Your task to perform on an android device: delete browsing data in the chrome app Image 0: 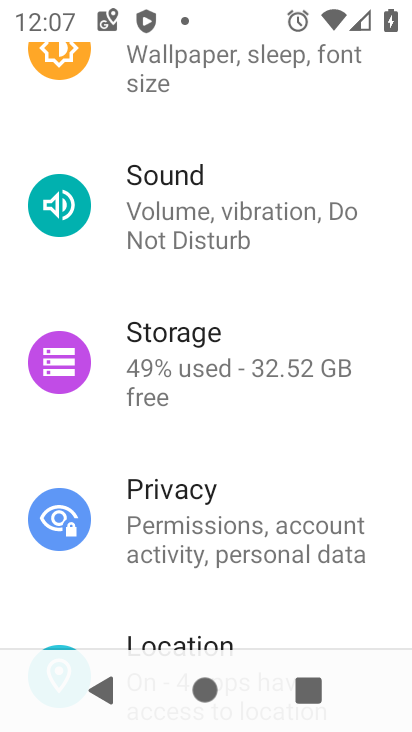
Step 0: press home button
Your task to perform on an android device: delete browsing data in the chrome app Image 1: 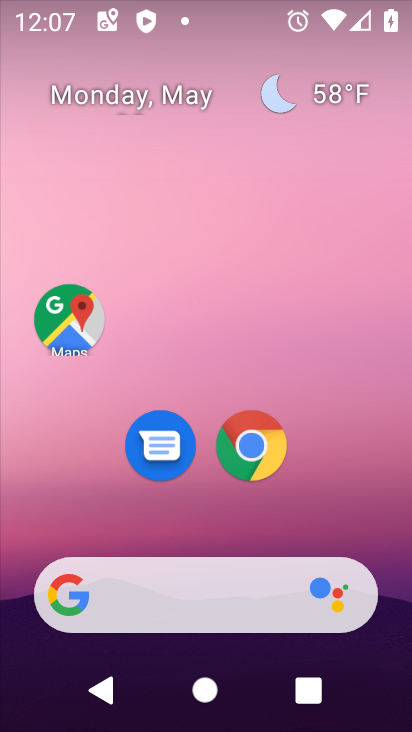
Step 1: click (248, 440)
Your task to perform on an android device: delete browsing data in the chrome app Image 2: 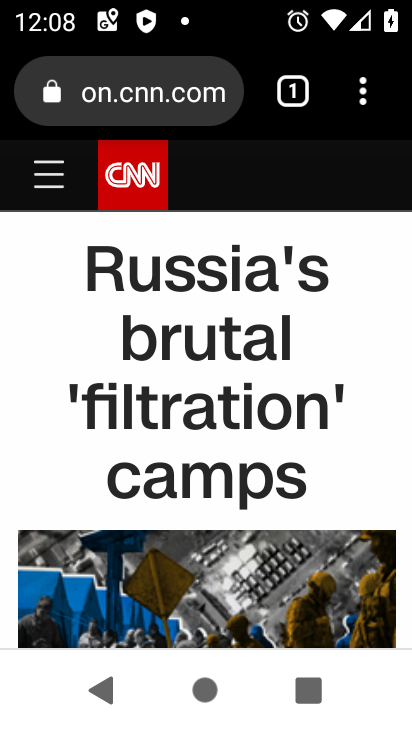
Step 2: click (365, 93)
Your task to perform on an android device: delete browsing data in the chrome app Image 3: 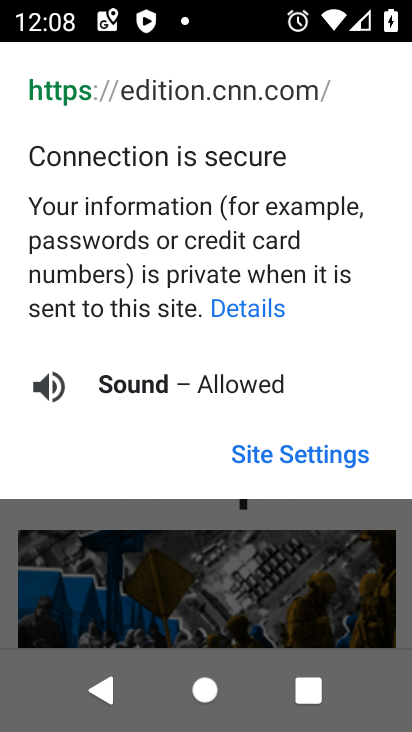
Step 3: click (227, 582)
Your task to perform on an android device: delete browsing data in the chrome app Image 4: 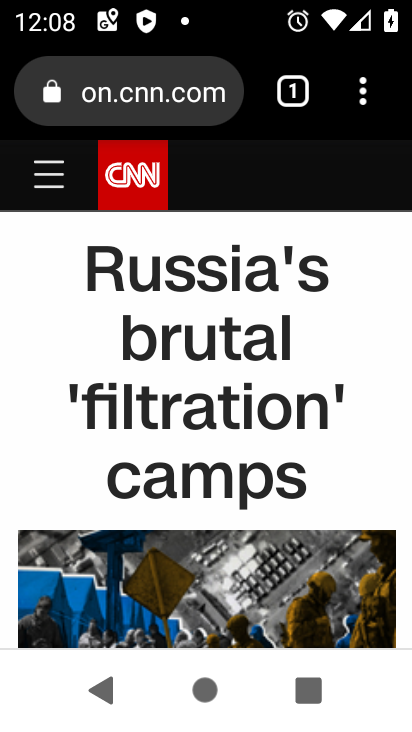
Step 4: click (361, 103)
Your task to perform on an android device: delete browsing data in the chrome app Image 5: 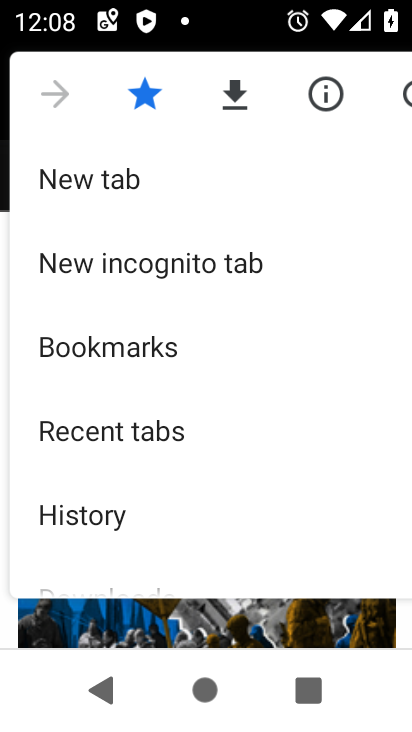
Step 5: click (135, 505)
Your task to perform on an android device: delete browsing data in the chrome app Image 6: 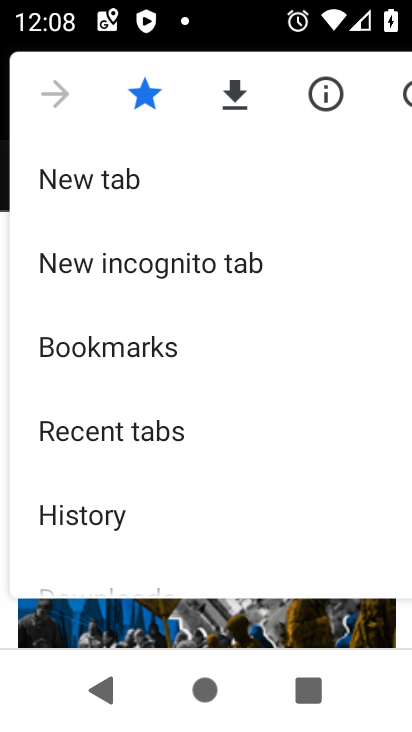
Step 6: click (135, 505)
Your task to perform on an android device: delete browsing data in the chrome app Image 7: 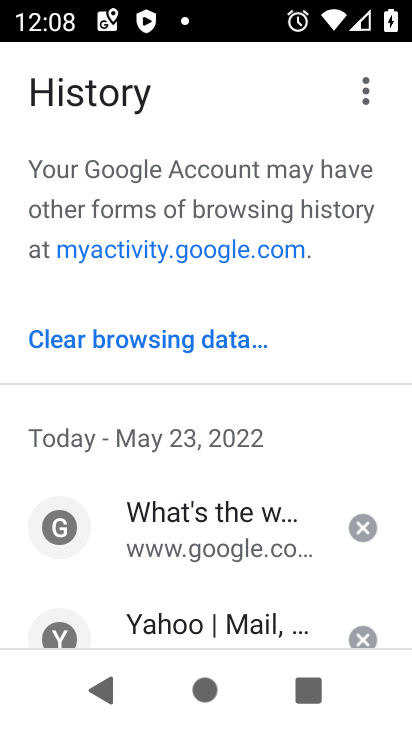
Step 7: click (128, 335)
Your task to perform on an android device: delete browsing data in the chrome app Image 8: 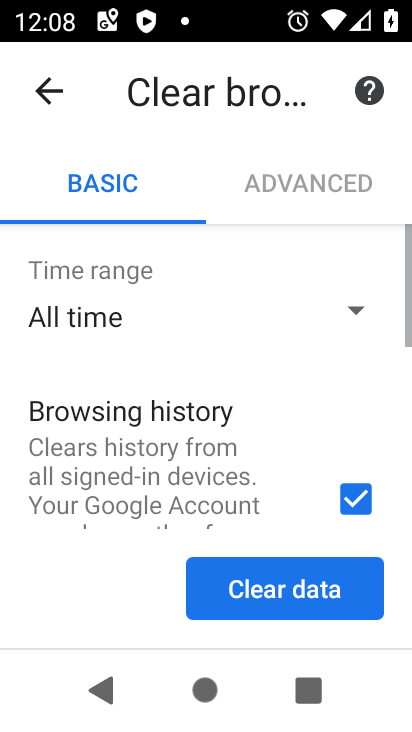
Step 8: drag from (245, 488) to (304, 112)
Your task to perform on an android device: delete browsing data in the chrome app Image 9: 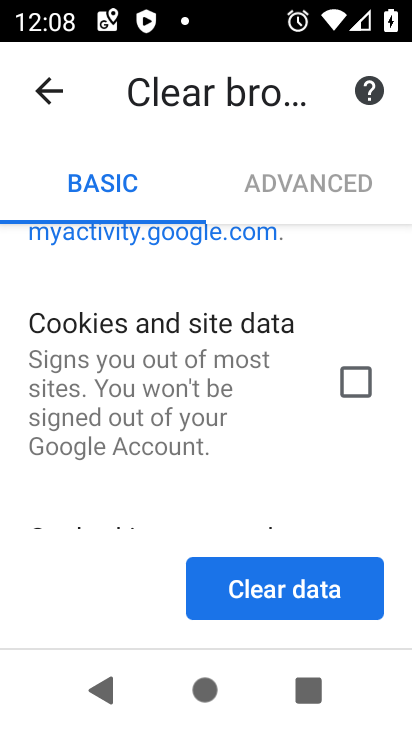
Step 9: click (363, 364)
Your task to perform on an android device: delete browsing data in the chrome app Image 10: 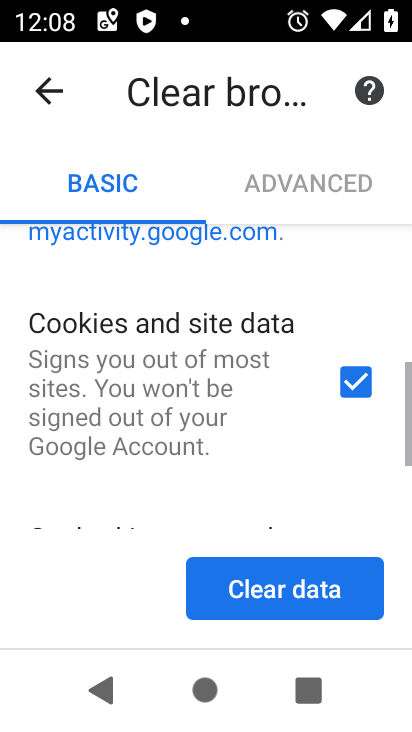
Step 10: drag from (237, 441) to (169, 219)
Your task to perform on an android device: delete browsing data in the chrome app Image 11: 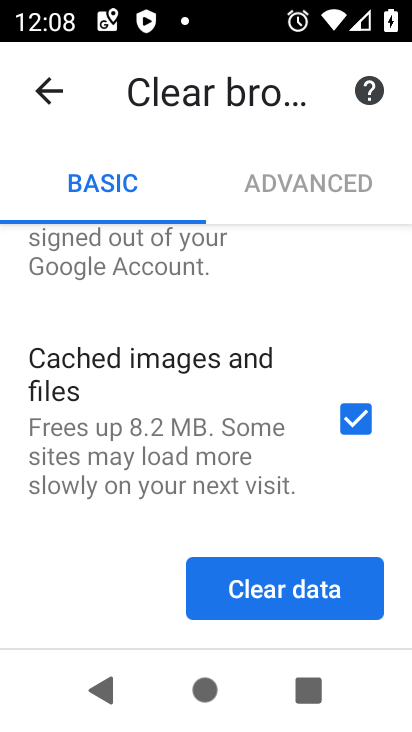
Step 11: click (293, 586)
Your task to perform on an android device: delete browsing data in the chrome app Image 12: 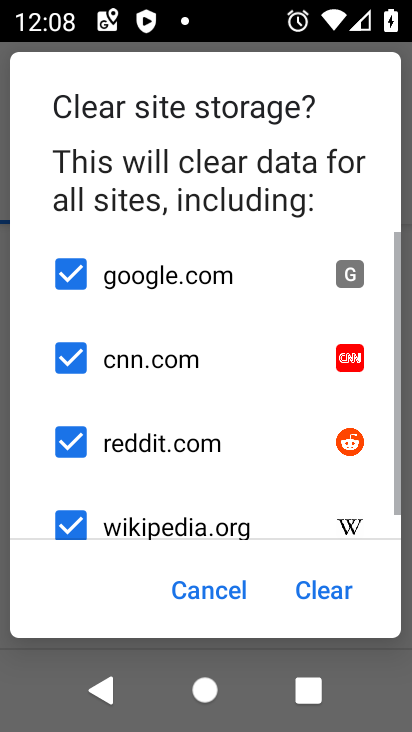
Step 12: click (318, 590)
Your task to perform on an android device: delete browsing data in the chrome app Image 13: 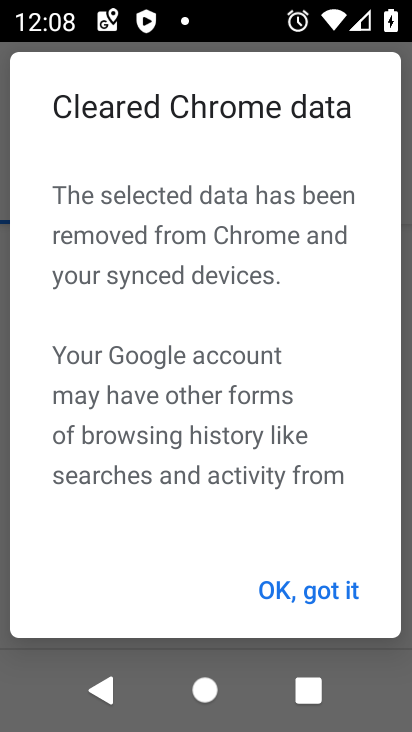
Step 13: click (298, 595)
Your task to perform on an android device: delete browsing data in the chrome app Image 14: 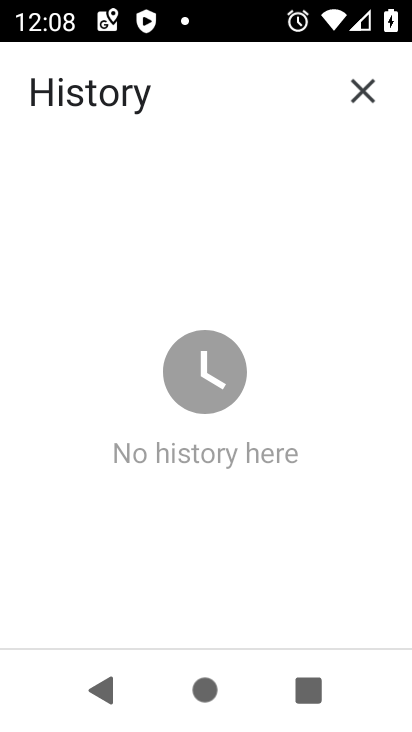
Step 14: task complete